Your task to perform on an android device: Open location settings Image 0: 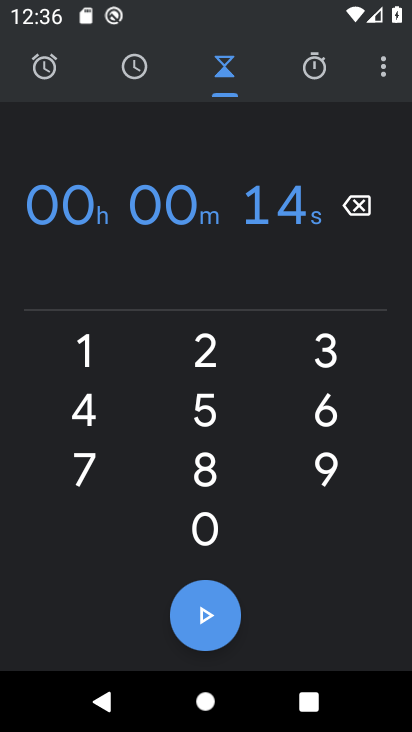
Step 0: press home button
Your task to perform on an android device: Open location settings Image 1: 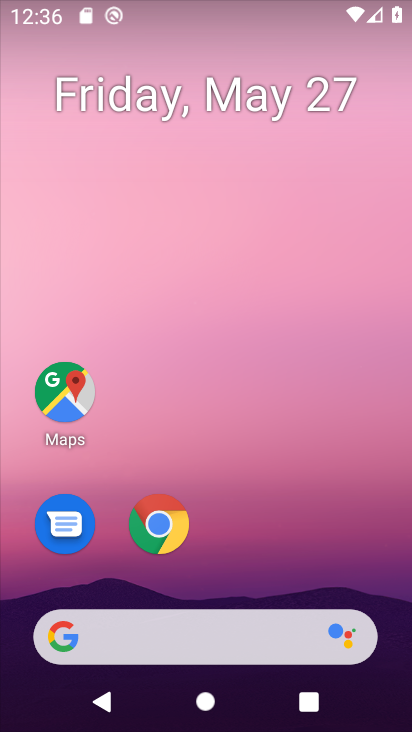
Step 1: drag from (247, 552) to (245, 42)
Your task to perform on an android device: Open location settings Image 2: 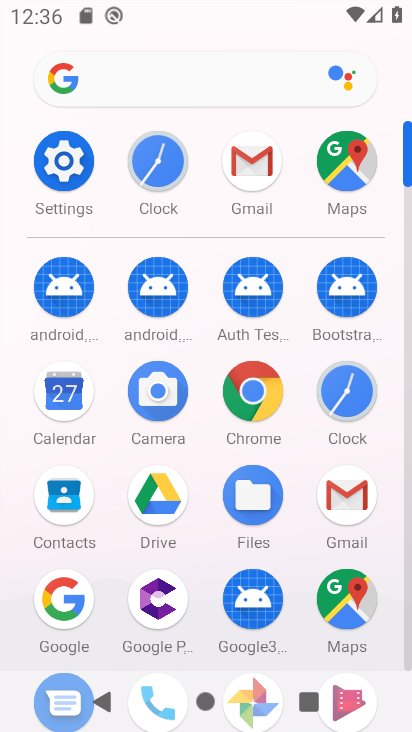
Step 2: click (62, 158)
Your task to perform on an android device: Open location settings Image 3: 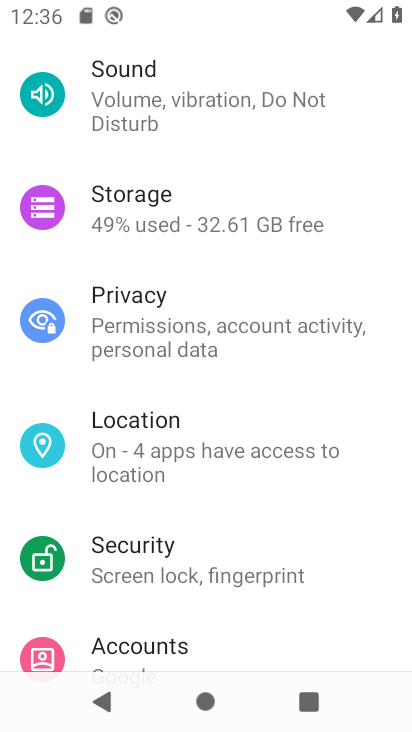
Step 3: click (258, 456)
Your task to perform on an android device: Open location settings Image 4: 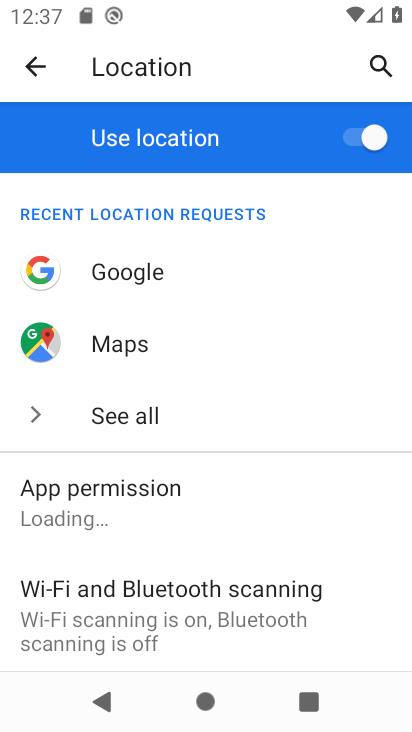
Step 4: task complete